Your task to perform on an android device: See recent photos Image 0: 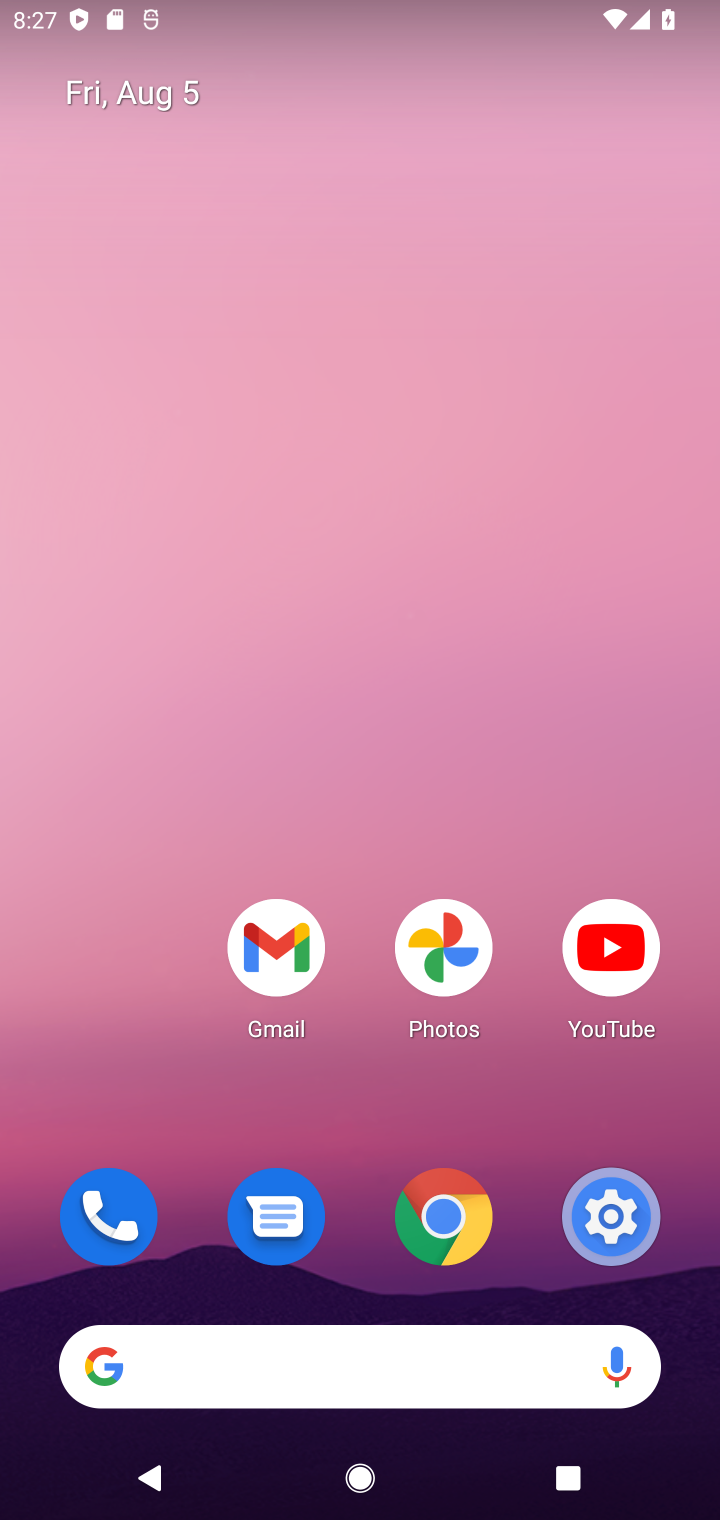
Step 0: click (596, 571)
Your task to perform on an android device: See recent photos Image 1: 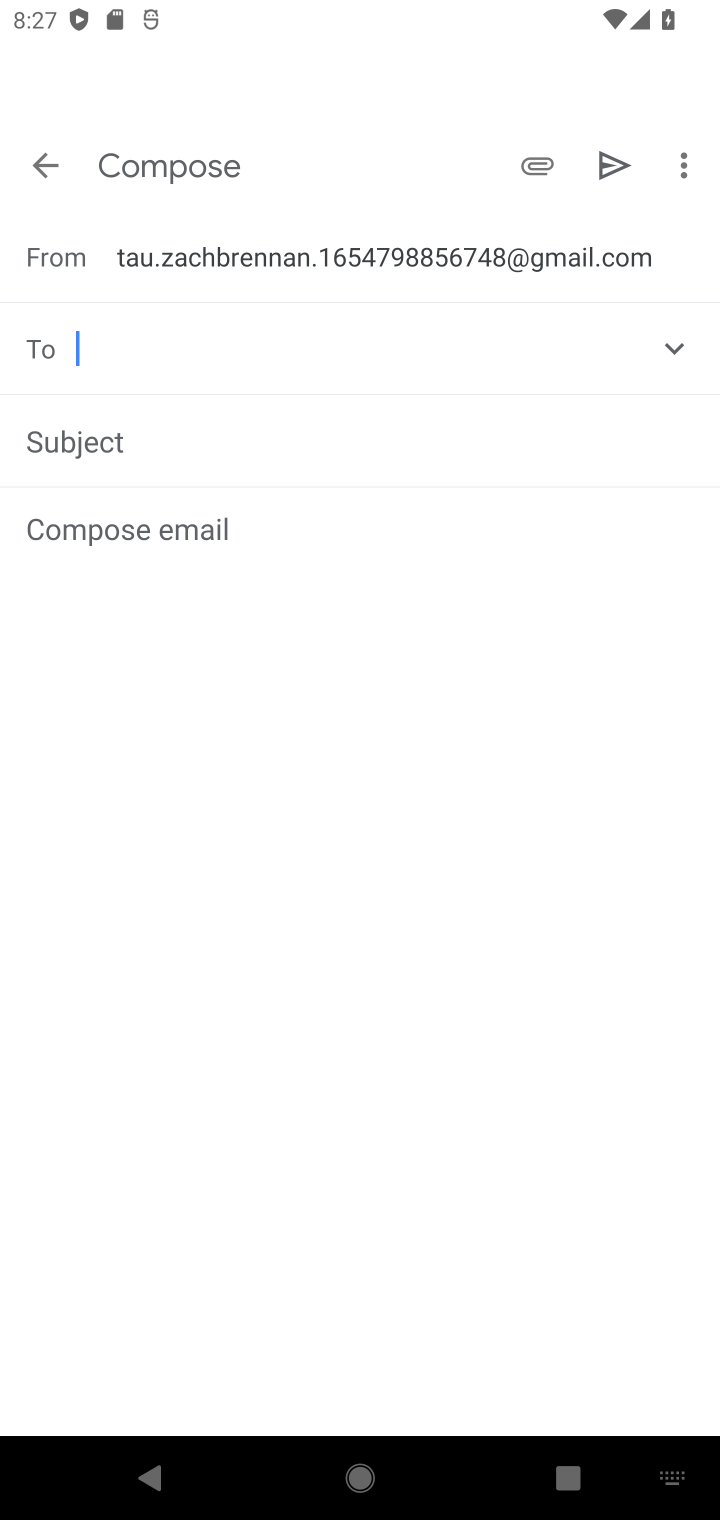
Step 1: press home button
Your task to perform on an android device: See recent photos Image 2: 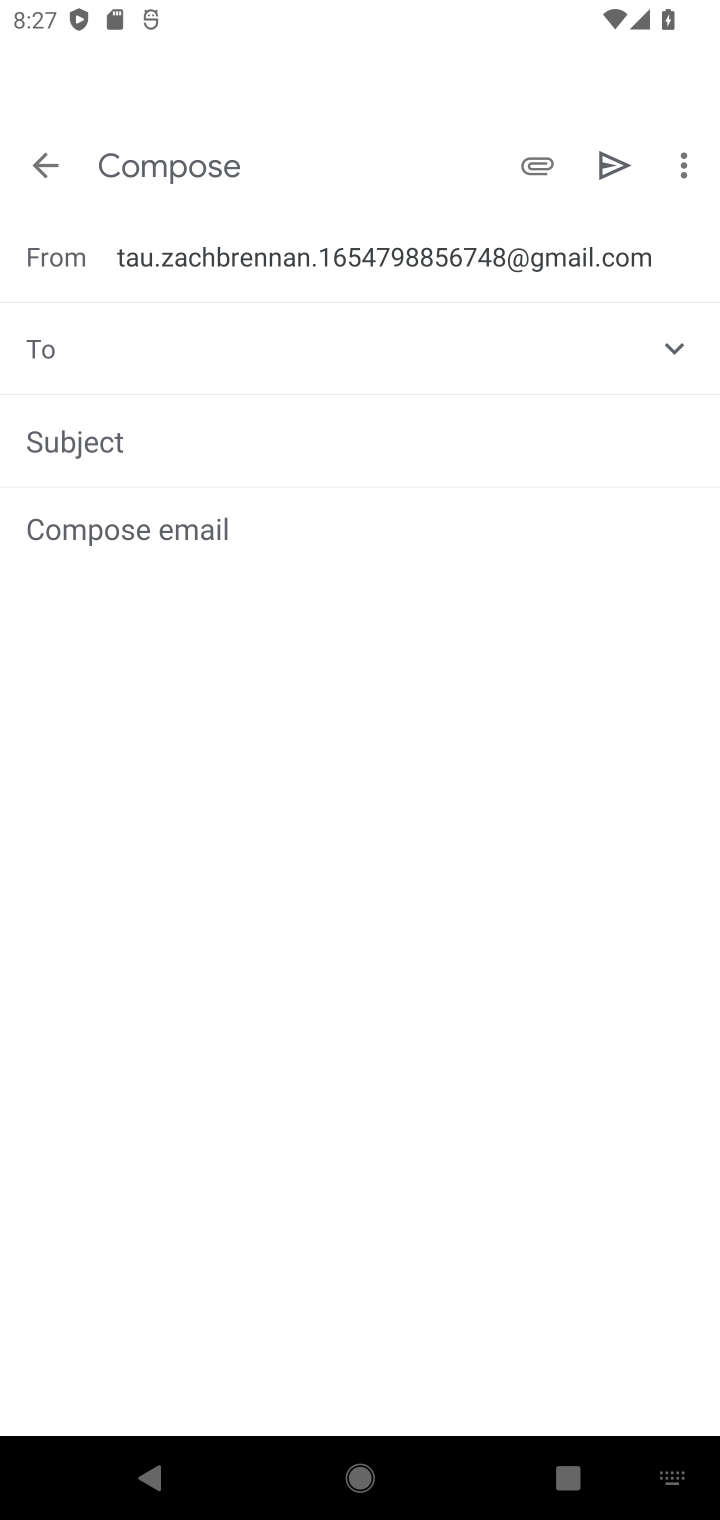
Step 2: drag from (323, 1132) to (458, 208)
Your task to perform on an android device: See recent photos Image 3: 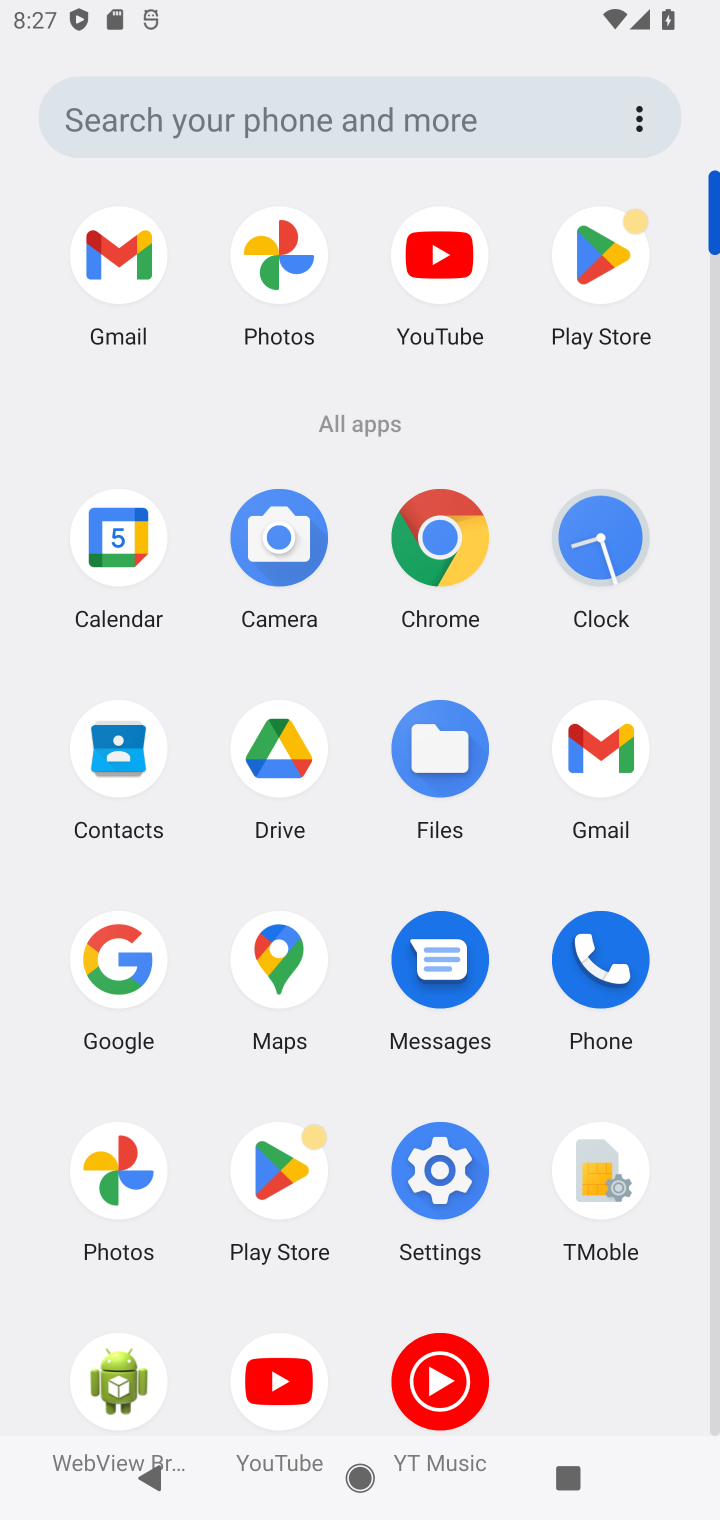
Step 3: click (131, 1173)
Your task to perform on an android device: See recent photos Image 4: 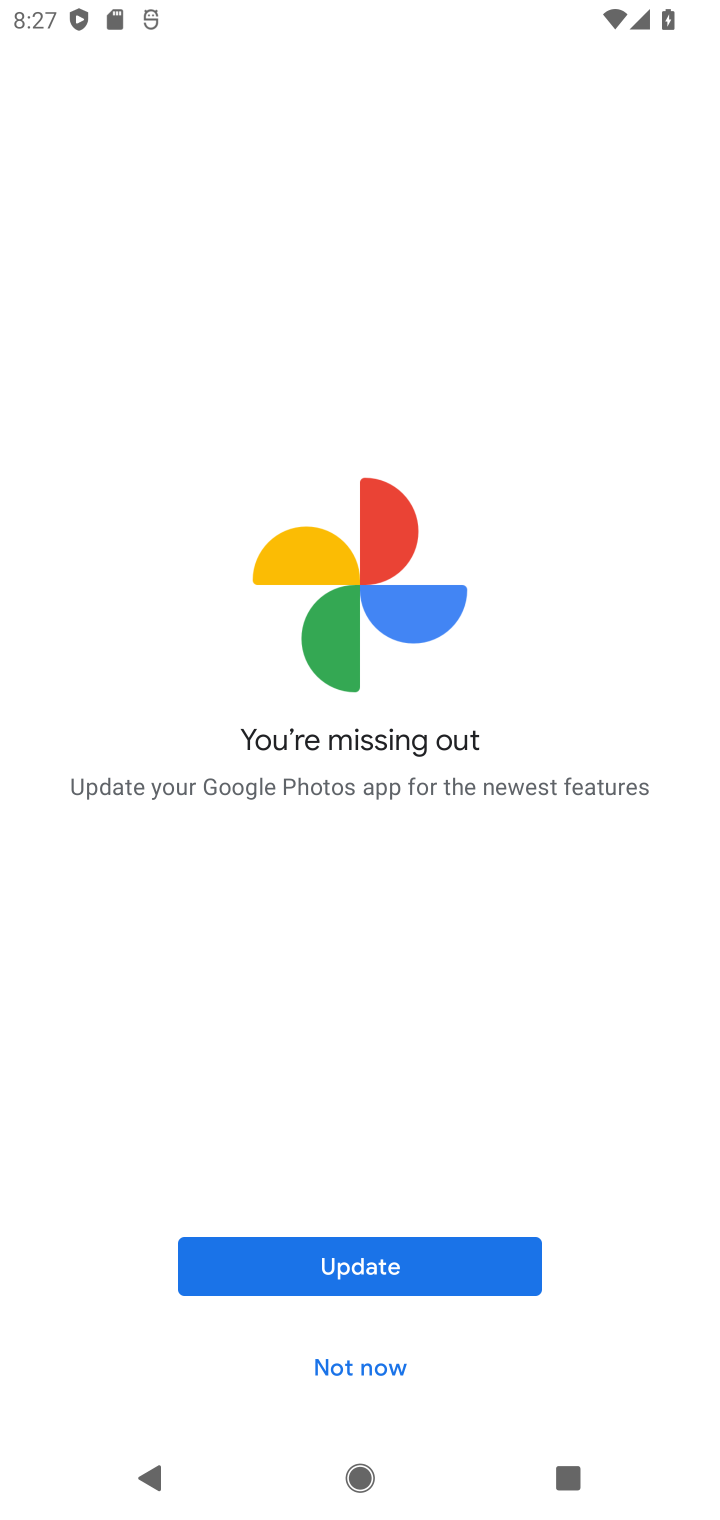
Step 4: click (336, 1367)
Your task to perform on an android device: See recent photos Image 5: 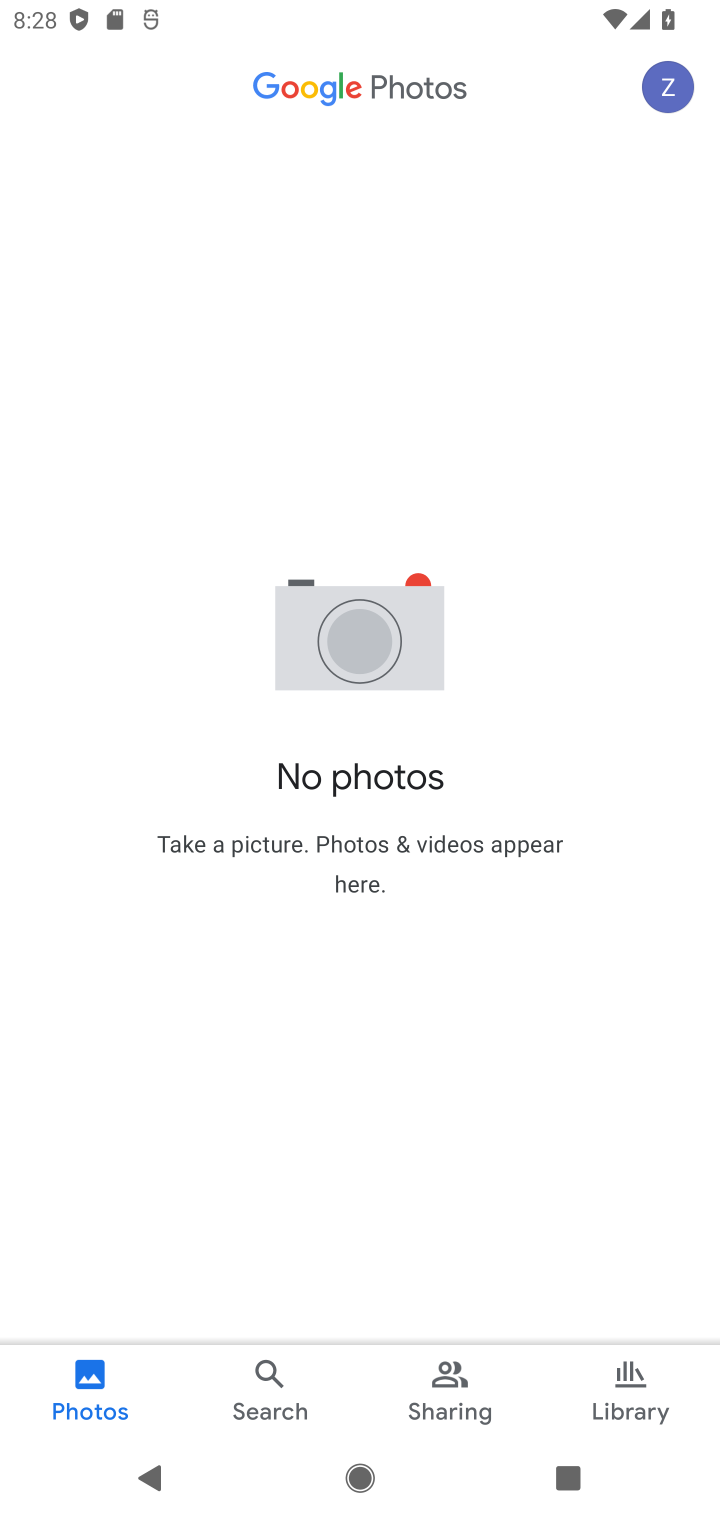
Step 5: drag from (447, 1165) to (508, 613)
Your task to perform on an android device: See recent photos Image 6: 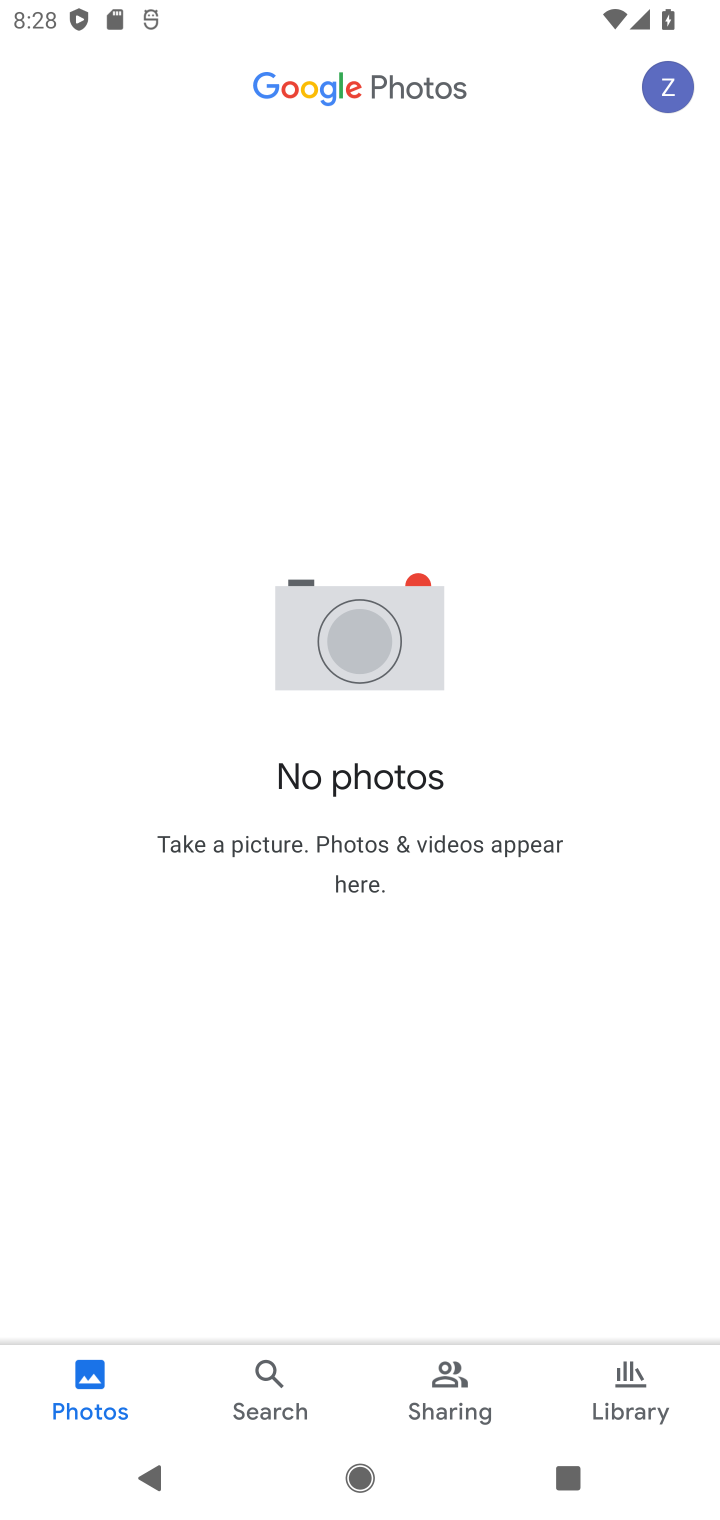
Step 6: click (540, 713)
Your task to perform on an android device: See recent photos Image 7: 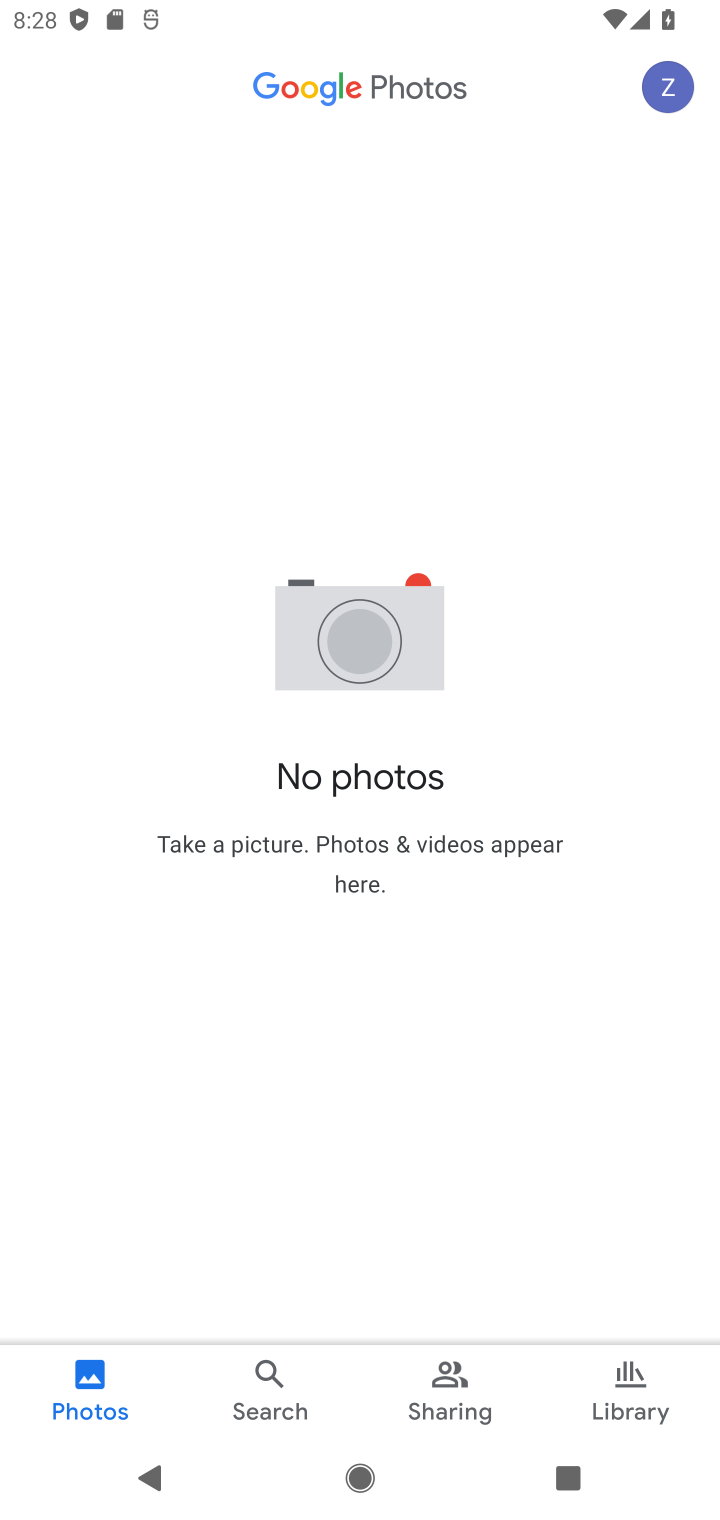
Step 7: task complete